Your task to perform on an android device: turn on the 24-hour format for clock Image 0: 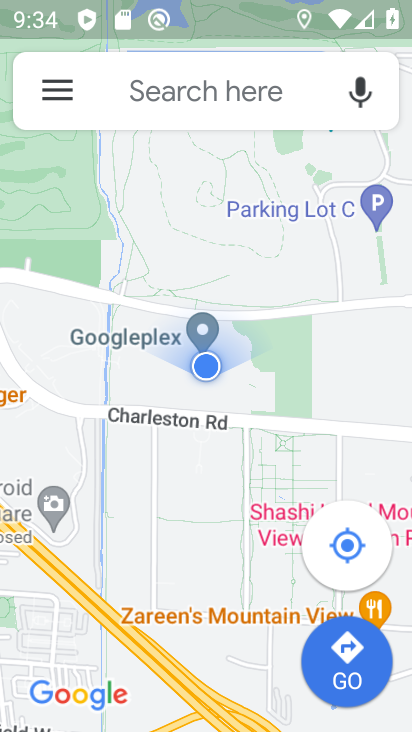
Step 0: press home button
Your task to perform on an android device: turn on the 24-hour format for clock Image 1: 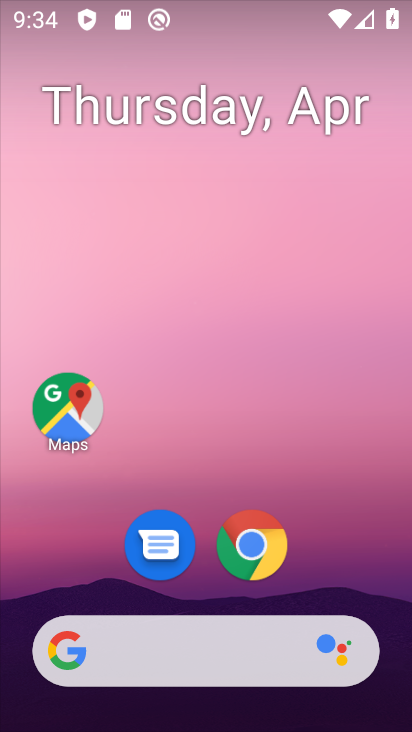
Step 1: drag from (198, 585) to (209, 35)
Your task to perform on an android device: turn on the 24-hour format for clock Image 2: 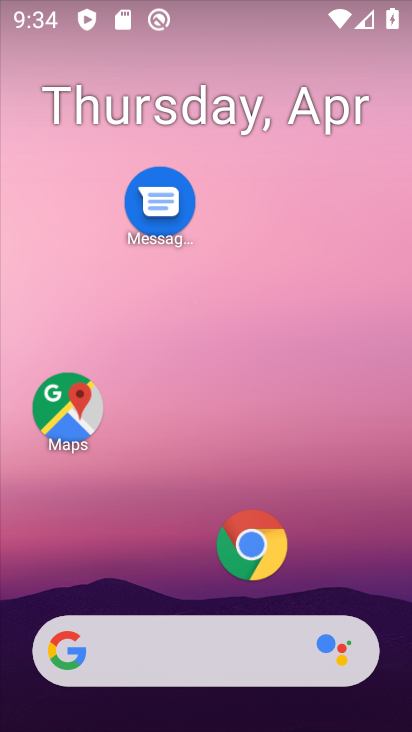
Step 2: drag from (208, 593) to (244, 150)
Your task to perform on an android device: turn on the 24-hour format for clock Image 3: 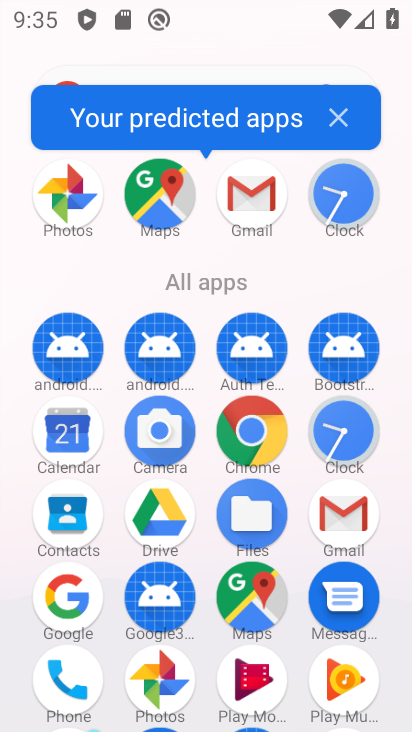
Step 3: click (342, 195)
Your task to perform on an android device: turn on the 24-hour format for clock Image 4: 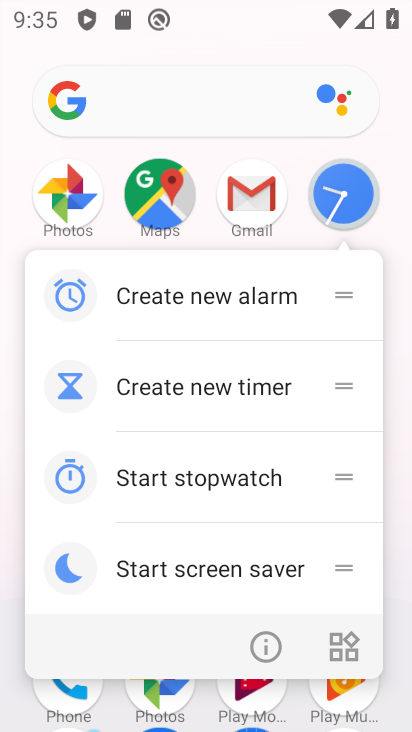
Step 4: click (350, 198)
Your task to perform on an android device: turn on the 24-hour format for clock Image 5: 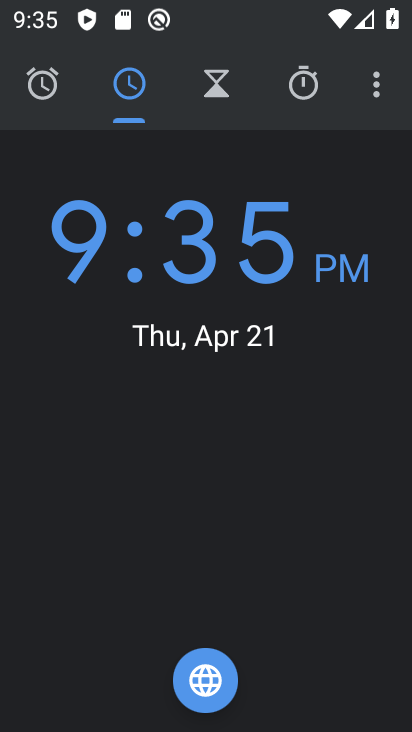
Step 5: click (370, 95)
Your task to perform on an android device: turn on the 24-hour format for clock Image 6: 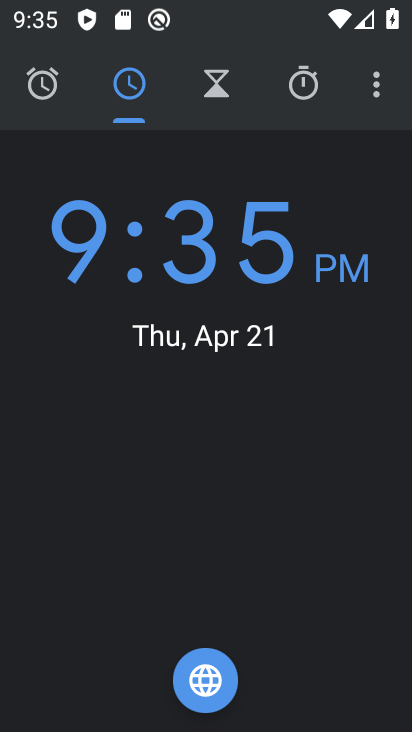
Step 6: click (380, 91)
Your task to perform on an android device: turn on the 24-hour format for clock Image 7: 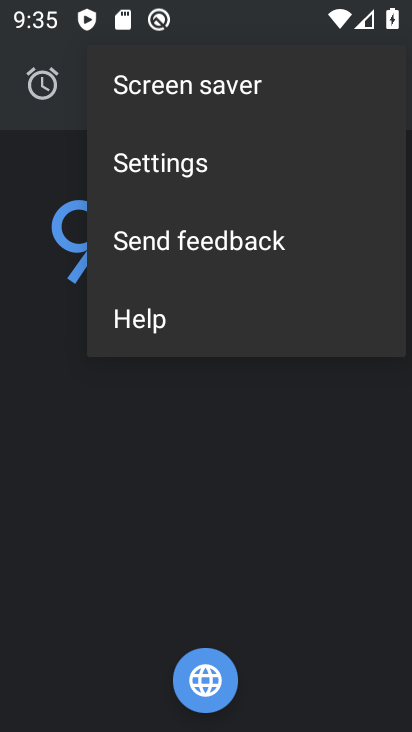
Step 7: click (189, 149)
Your task to perform on an android device: turn on the 24-hour format for clock Image 8: 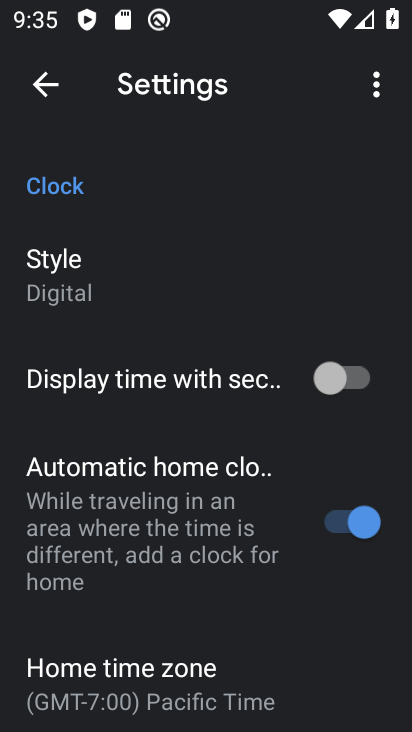
Step 8: drag from (220, 611) to (228, 200)
Your task to perform on an android device: turn on the 24-hour format for clock Image 9: 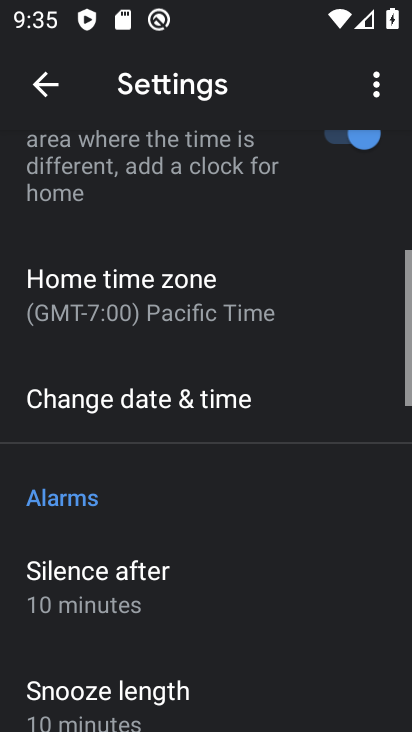
Step 9: drag from (202, 423) to (229, 286)
Your task to perform on an android device: turn on the 24-hour format for clock Image 10: 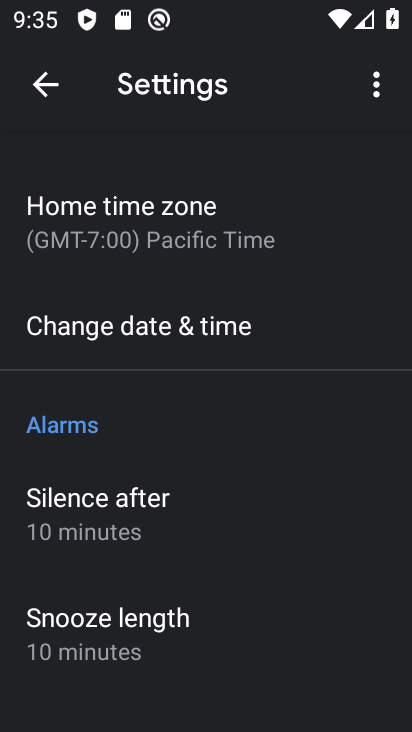
Step 10: click (185, 317)
Your task to perform on an android device: turn on the 24-hour format for clock Image 11: 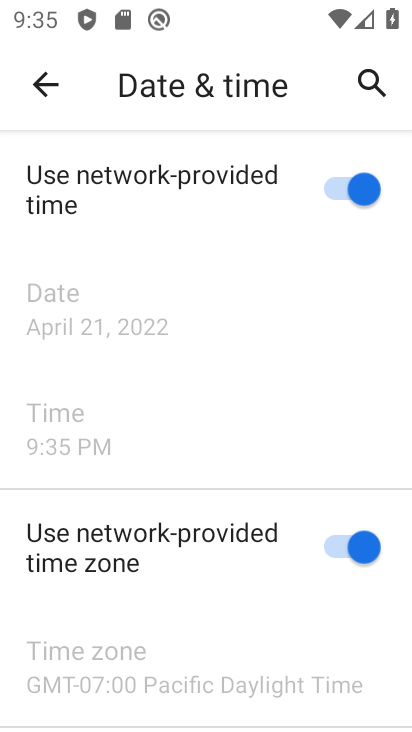
Step 11: drag from (257, 519) to (278, 200)
Your task to perform on an android device: turn on the 24-hour format for clock Image 12: 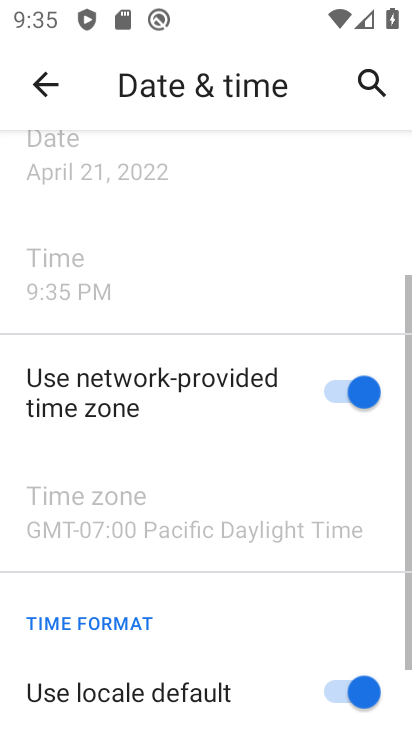
Step 12: drag from (268, 579) to (312, 196)
Your task to perform on an android device: turn on the 24-hour format for clock Image 13: 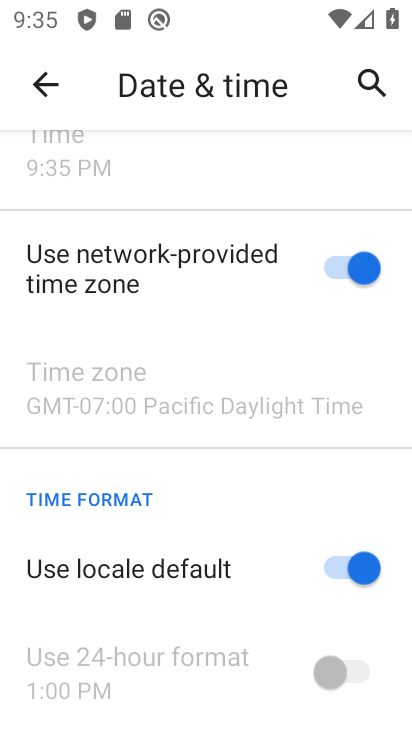
Step 13: click (343, 567)
Your task to perform on an android device: turn on the 24-hour format for clock Image 14: 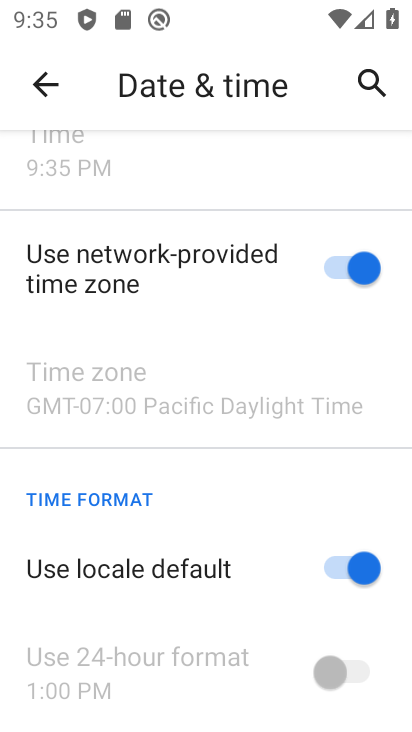
Step 14: click (357, 673)
Your task to perform on an android device: turn on the 24-hour format for clock Image 15: 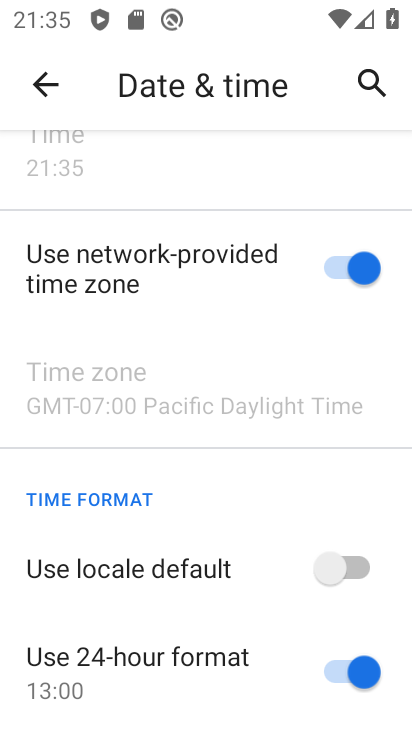
Step 15: task complete